Your task to perform on an android device: Is it going to rain today? Image 0: 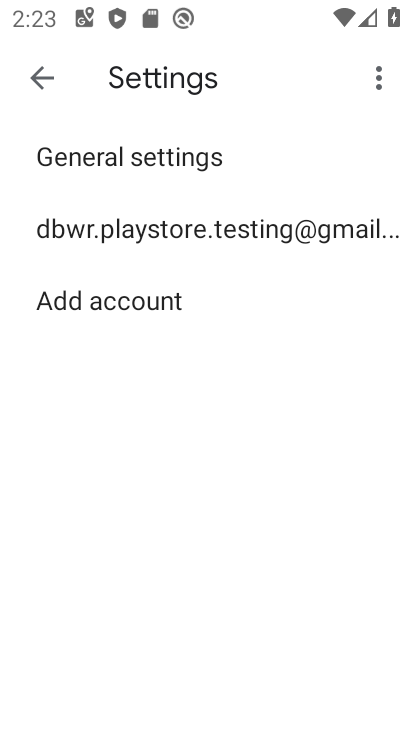
Step 0: press home button
Your task to perform on an android device: Is it going to rain today? Image 1: 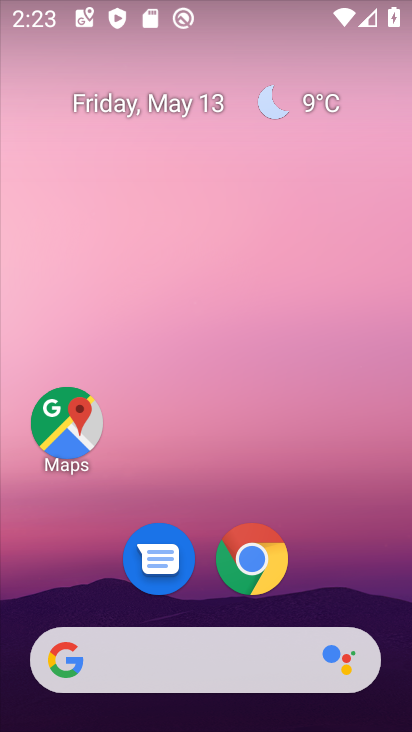
Step 1: drag from (306, 484) to (349, 134)
Your task to perform on an android device: Is it going to rain today? Image 2: 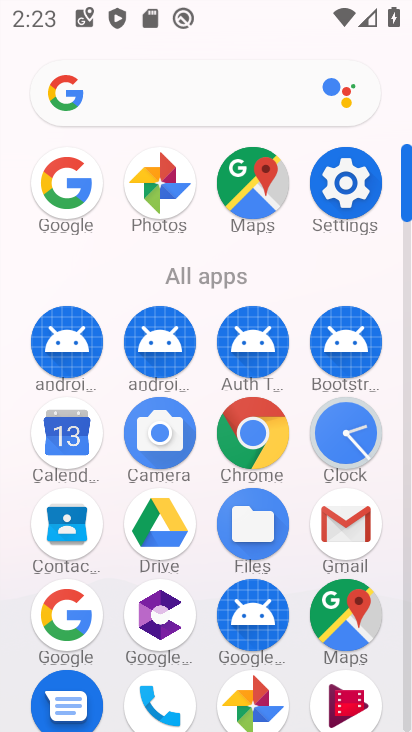
Step 2: click (77, 625)
Your task to perform on an android device: Is it going to rain today? Image 3: 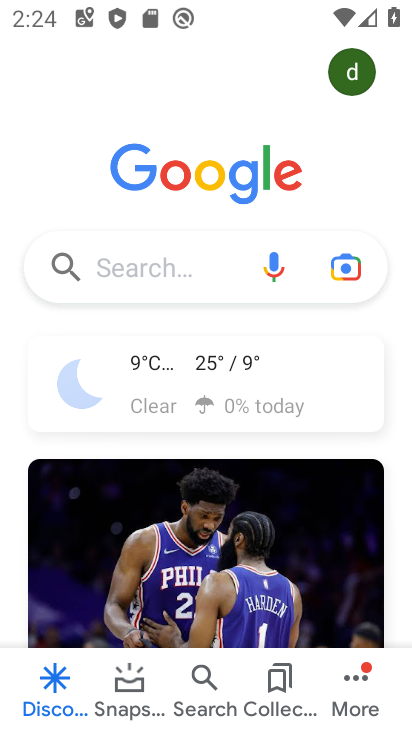
Step 3: click (152, 263)
Your task to perform on an android device: Is it going to rain today? Image 4: 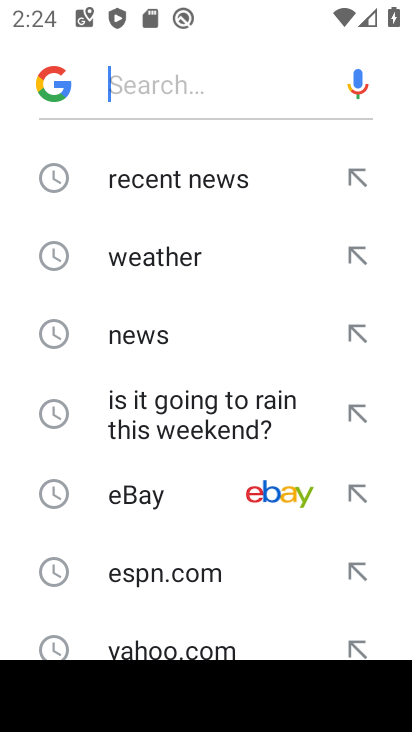
Step 4: click (165, 255)
Your task to perform on an android device: Is it going to rain today? Image 5: 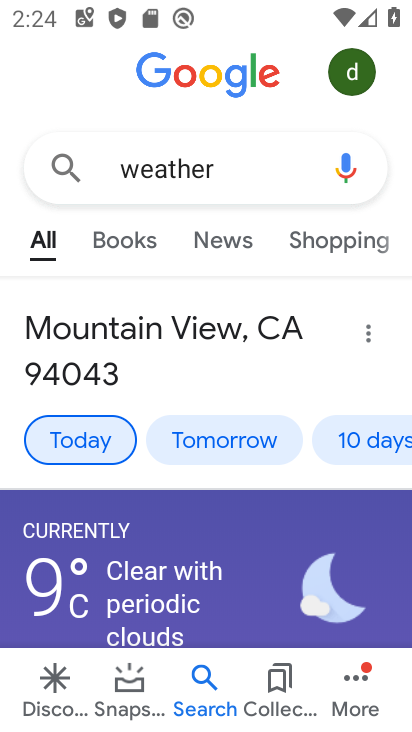
Step 5: task complete